Your task to perform on an android device: Go to battery settings Image 0: 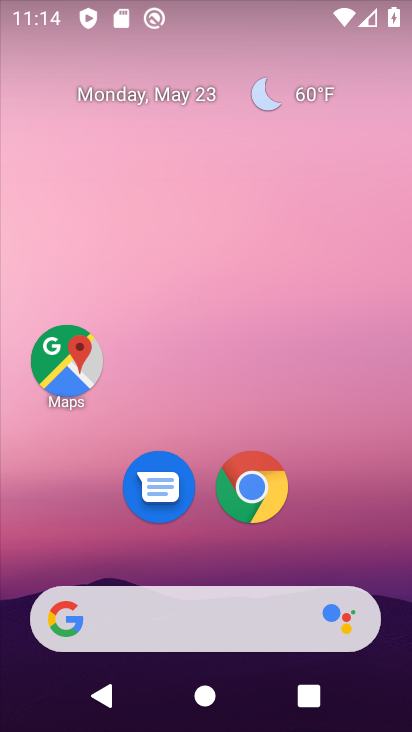
Step 0: drag from (86, 563) to (184, 99)
Your task to perform on an android device: Go to battery settings Image 1: 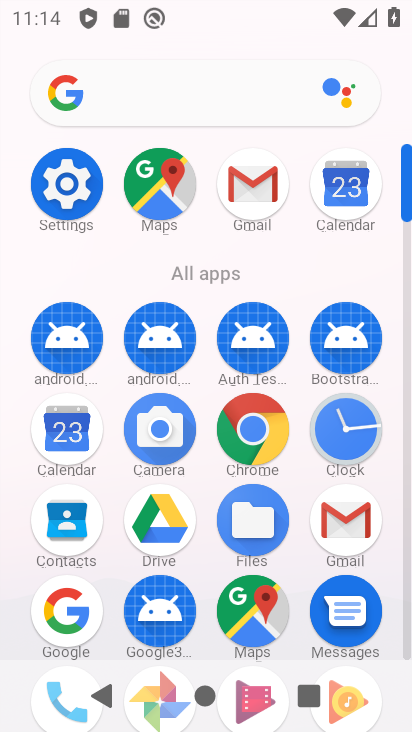
Step 1: drag from (203, 576) to (277, 305)
Your task to perform on an android device: Go to battery settings Image 2: 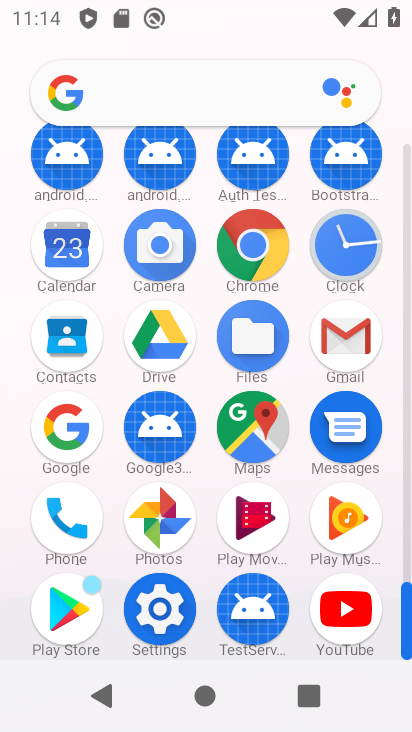
Step 2: click (162, 621)
Your task to perform on an android device: Go to battery settings Image 3: 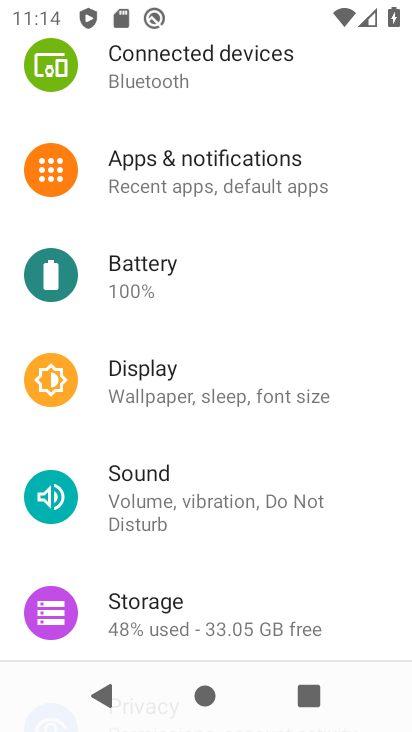
Step 3: click (215, 289)
Your task to perform on an android device: Go to battery settings Image 4: 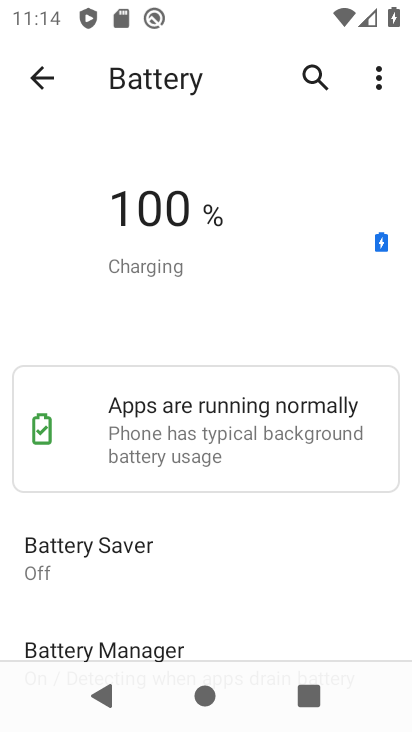
Step 4: task complete